Your task to perform on an android device: What is the recent news? Image 0: 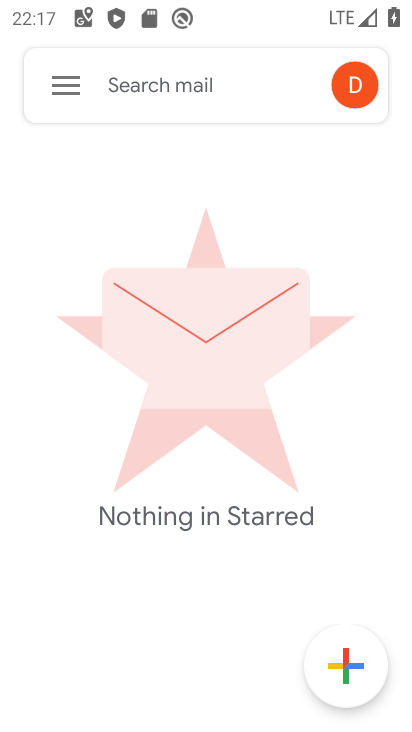
Step 0: click (308, 453)
Your task to perform on an android device: What is the recent news? Image 1: 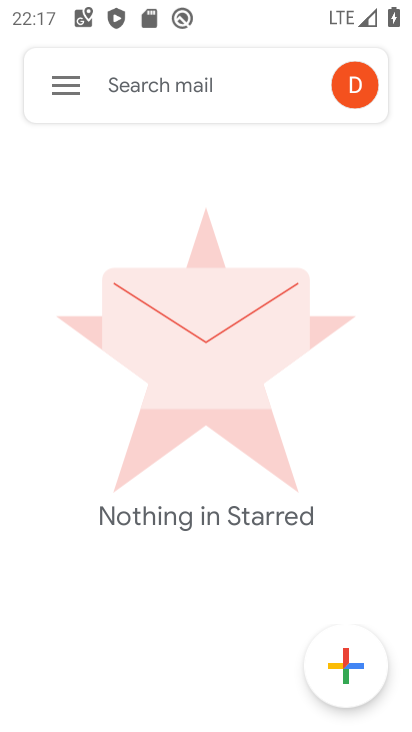
Step 1: press home button
Your task to perform on an android device: What is the recent news? Image 2: 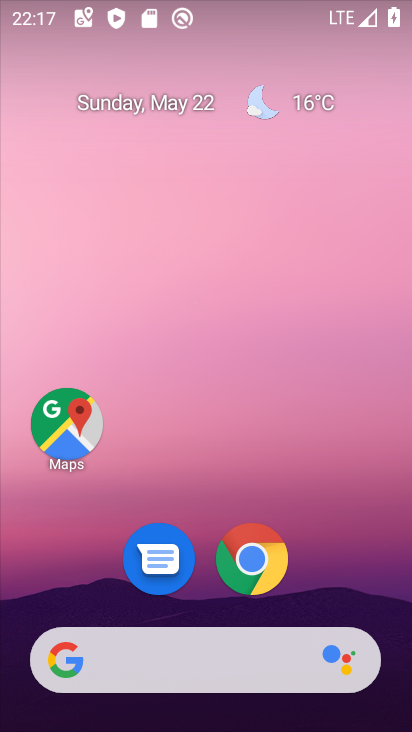
Step 2: drag from (216, 625) to (274, 242)
Your task to perform on an android device: What is the recent news? Image 3: 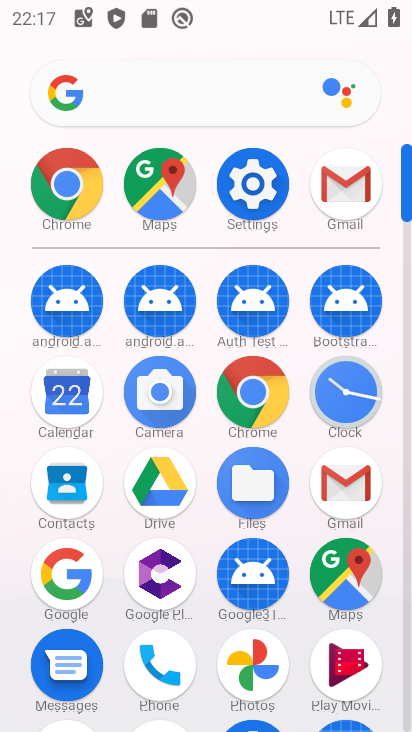
Step 3: click (148, 182)
Your task to perform on an android device: What is the recent news? Image 4: 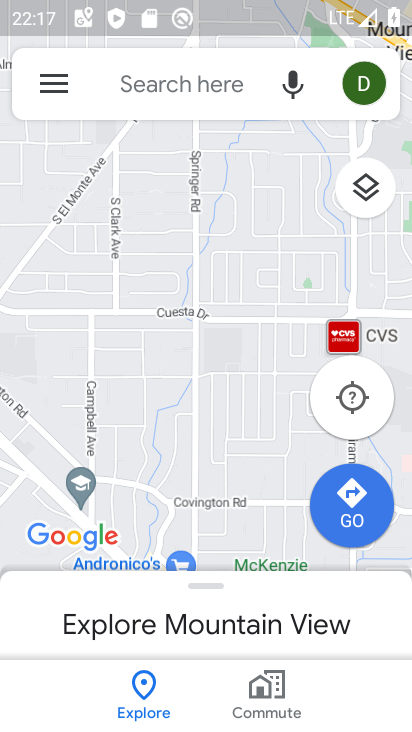
Step 4: press home button
Your task to perform on an android device: What is the recent news? Image 5: 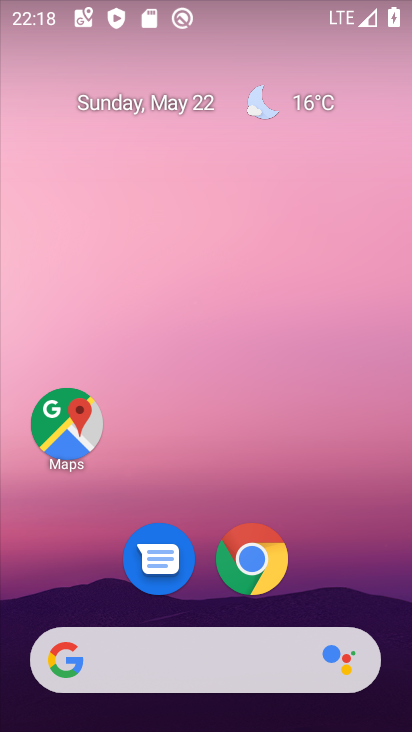
Step 5: click (193, 672)
Your task to perform on an android device: What is the recent news? Image 6: 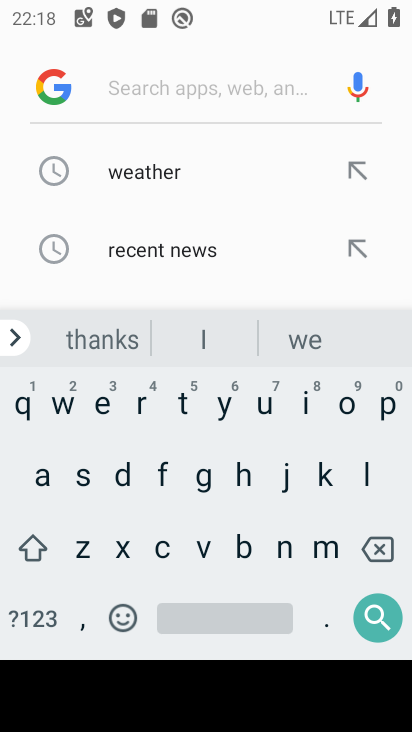
Step 6: click (177, 239)
Your task to perform on an android device: What is the recent news? Image 7: 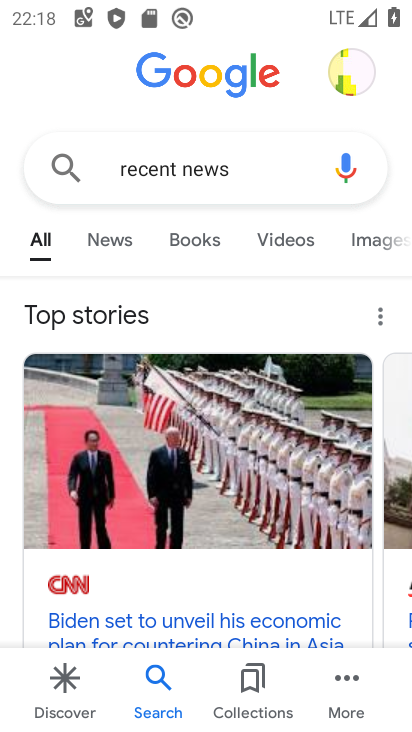
Step 7: task complete